Your task to perform on an android device: Open Google Chrome Image 0: 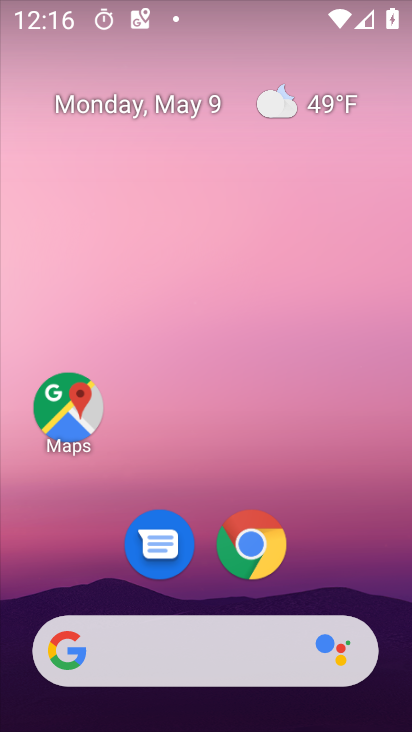
Step 0: drag from (359, 609) to (362, 26)
Your task to perform on an android device: Open Google Chrome Image 1: 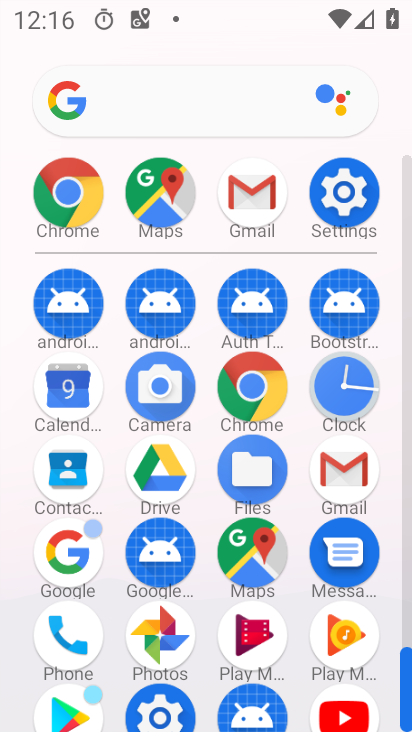
Step 1: click (259, 381)
Your task to perform on an android device: Open Google Chrome Image 2: 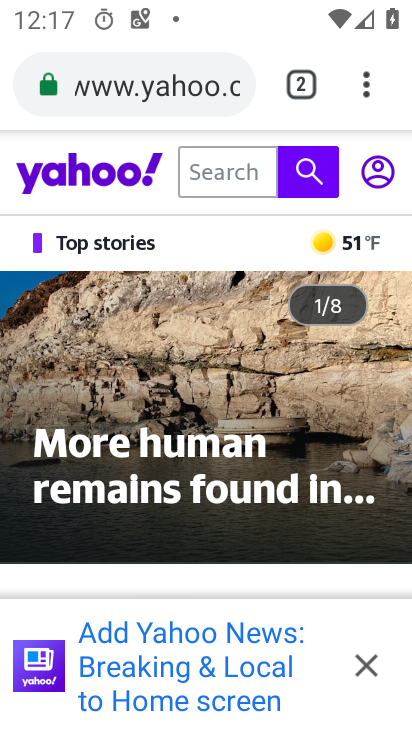
Step 2: task complete